Your task to perform on an android device: turn on showing notifications on the lock screen Image 0: 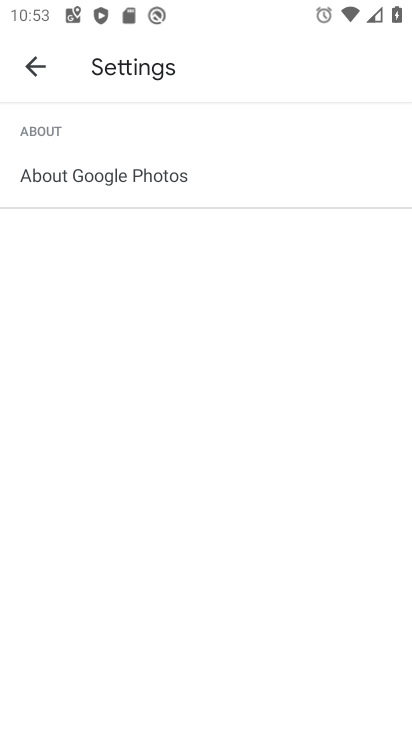
Step 0: press home button
Your task to perform on an android device: turn on showing notifications on the lock screen Image 1: 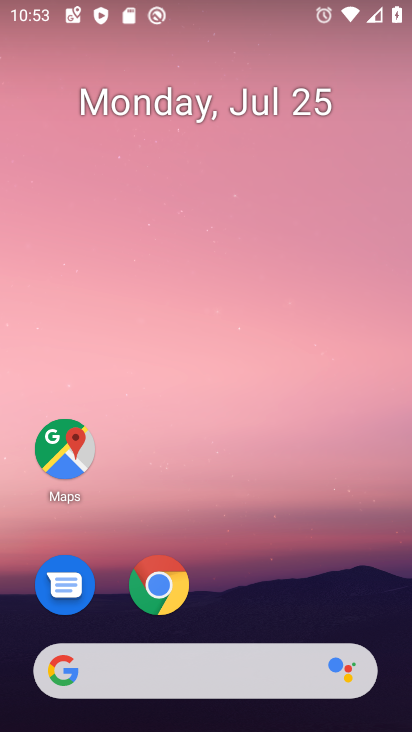
Step 1: drag from (223, 608) to (163, 17)
Your task to perform on an android device: turn on showing notifications on the lock screen Image 2: 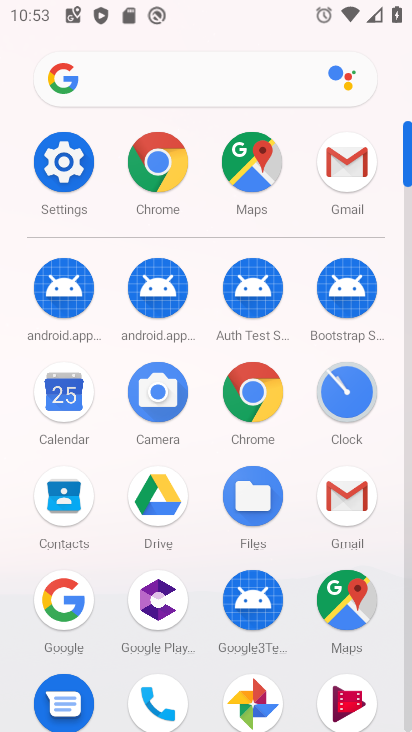
Step 2: click (40, 170)
Your task to perform on an android device: turn on showing notifications on the lock screen Image 3: 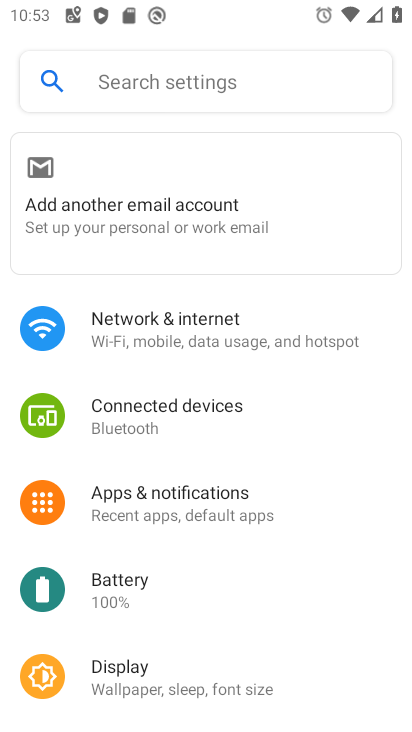
Step 3: click (102, 502)
Your task to perform on an android device: turn on showing notifications on the lock screen Image 4: 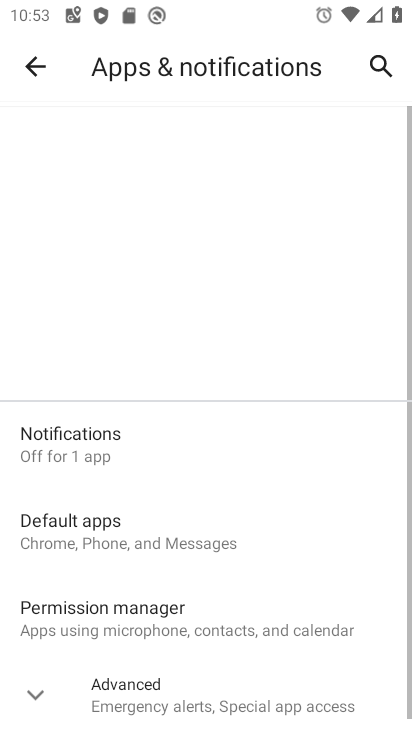
Step 4: click (133, 454)
Your task to perform on an android device: turn on showing notifications on the lock screen Image 5: 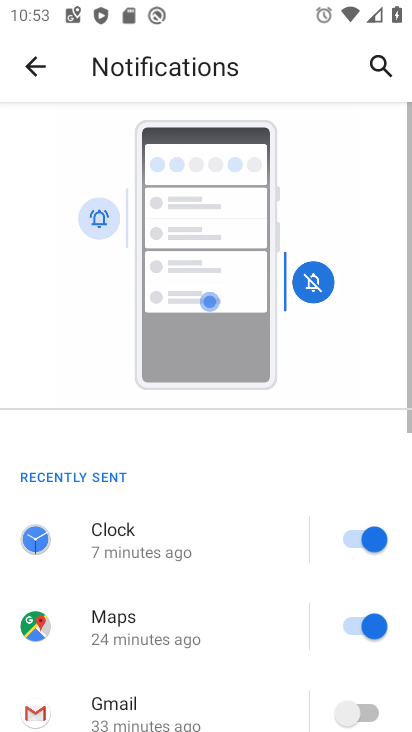
Step 5: drag from (134, 616) to (50, 65)
Your task to perform on an android device: turn on showing notifications on the lock screen Image 6: 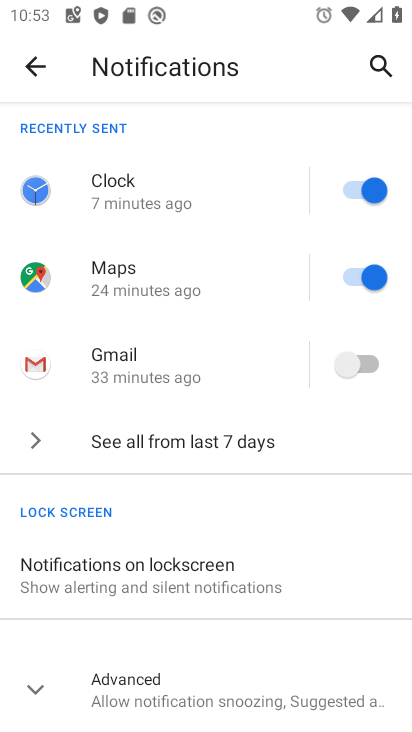
Step 6: click (185, 577)
Your task to perform on an android device: turn on showing notifications on the lock screen Image 7: 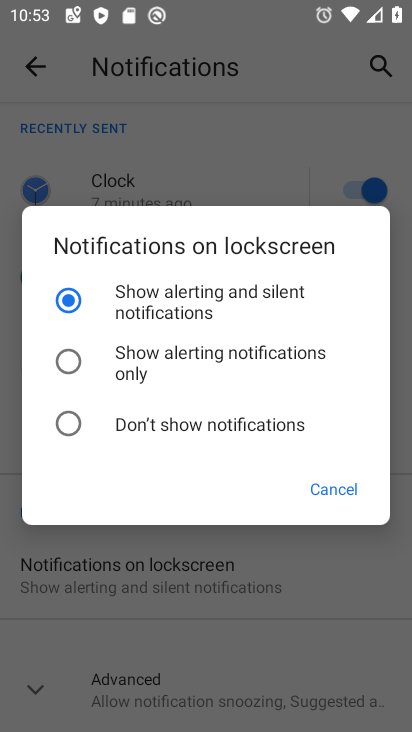
Step 7: click (154, 290)
Your task to perform on an android device: turn on showing notifications on the lock screen Image 8: 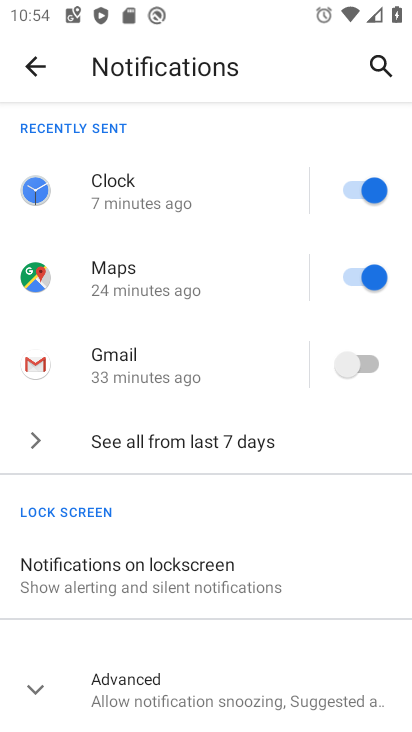
Step 8: task complete